Your task to perform on an android device: install app "Nova Launcher" Image 0: 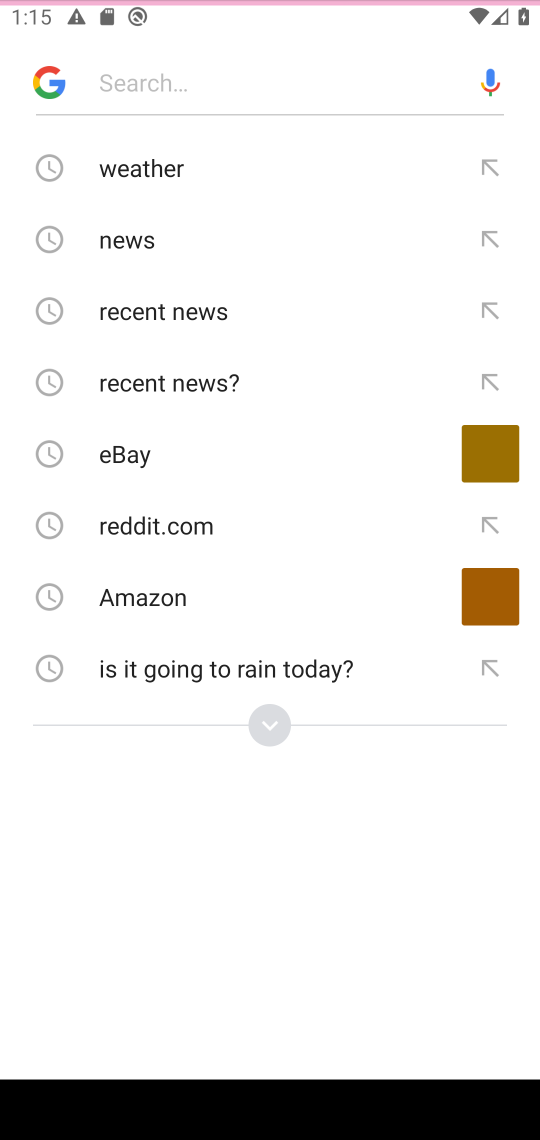
Step 0: press home button
Your task to perform on an android device: install app "Nova Launcher" Image 1: 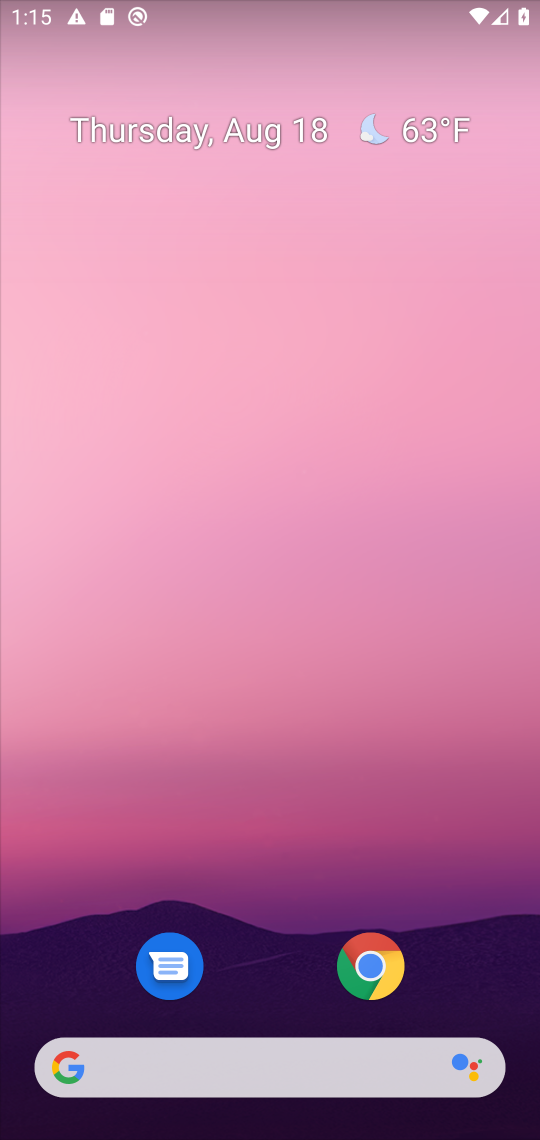
Step 1: press home button
Your task to perform on an android device: install app "Nova Launcher" Image 2: 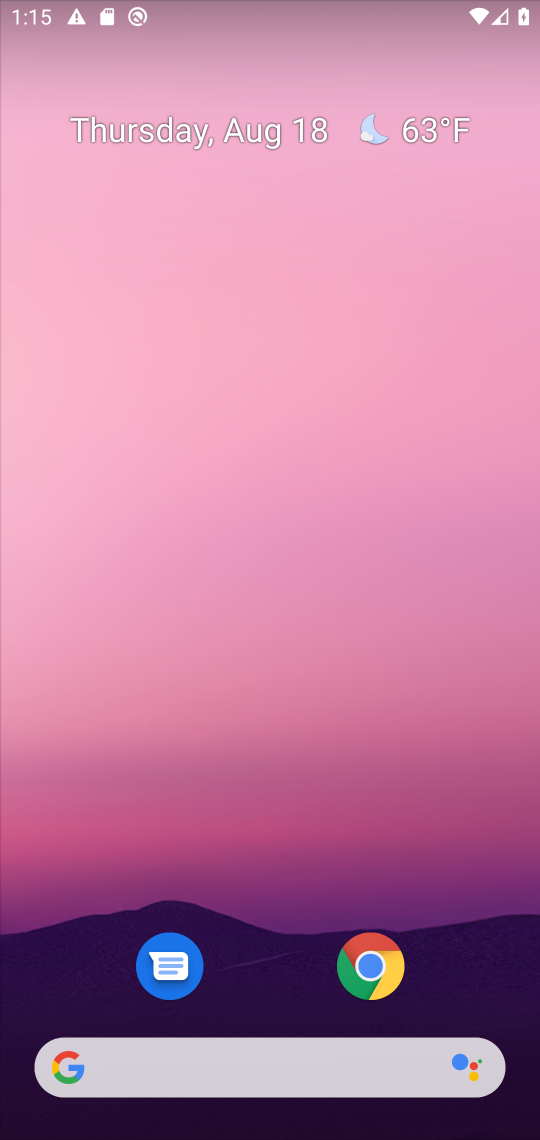
Step 2: drag from (272, 995) to (306, 1)
Your task to perform on an android device: install app "Nova Launcher" Image 3: 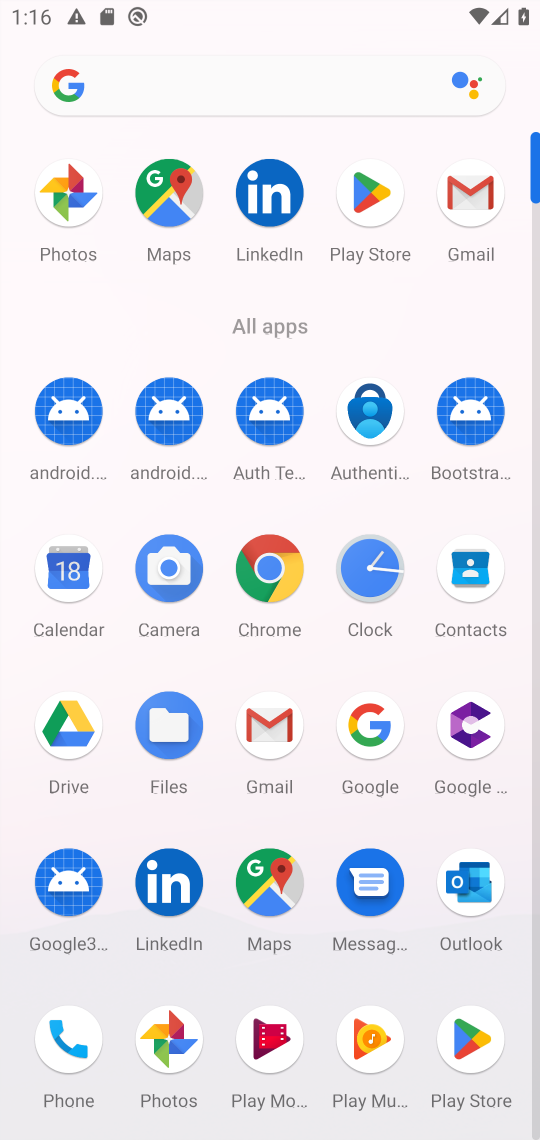
Step 3: click (368, 192)
Your task to perform on an android device: install app "Nova Launcher" Image 4: 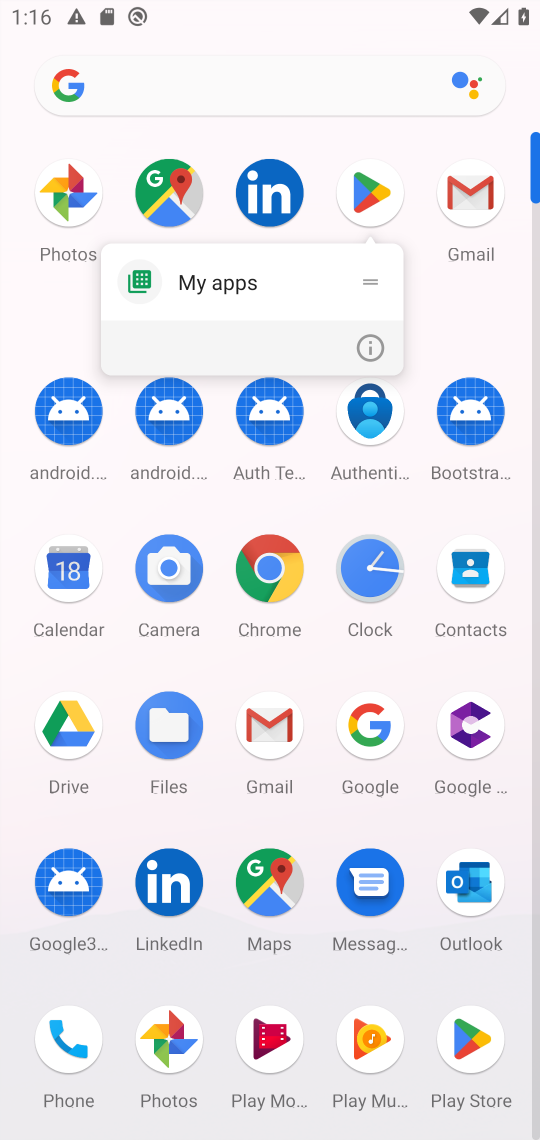
Step 4: click (368, 192)
Your task to perform on an android device: install app "Nova Launcher" Image 5: 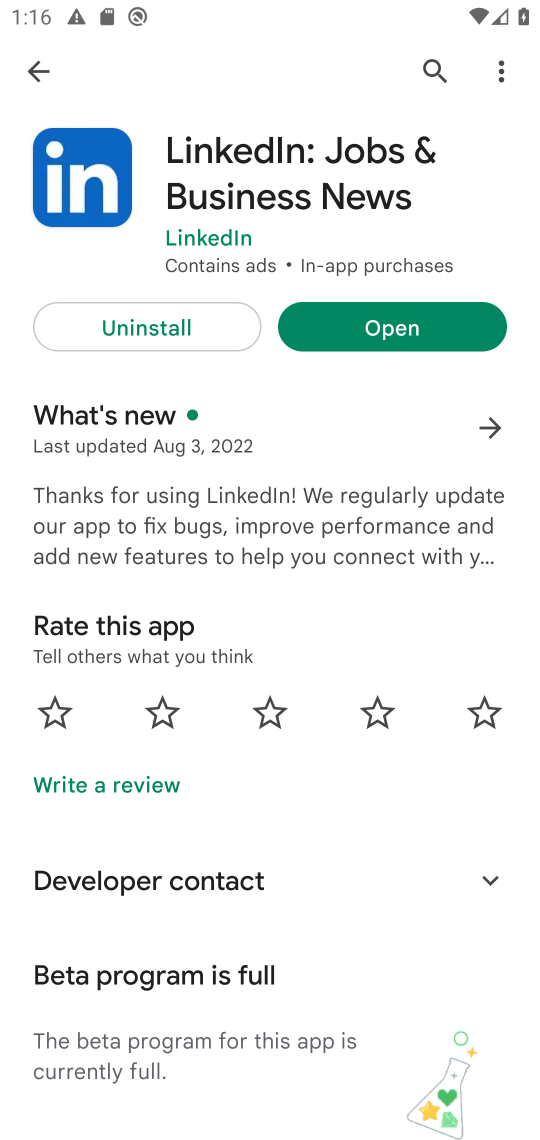
Step 5: click (431, 67)
Your task to perform on an android device: install app "Nova Launcher" Image 6: 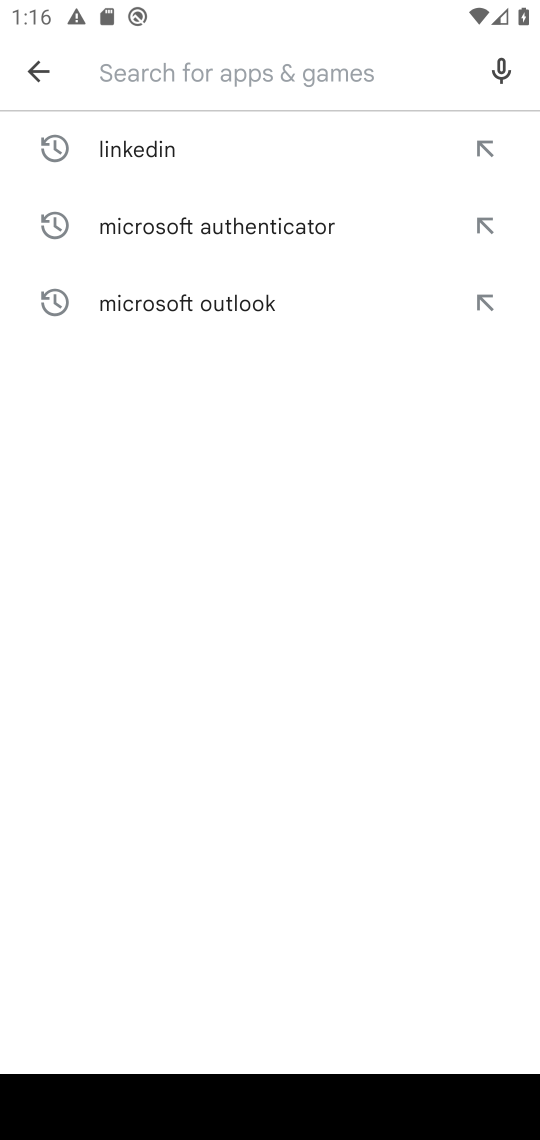
Step 6: type "Nova Launcher"
Your task to perform on an android device: install app "Nova Launcher" Image 7: 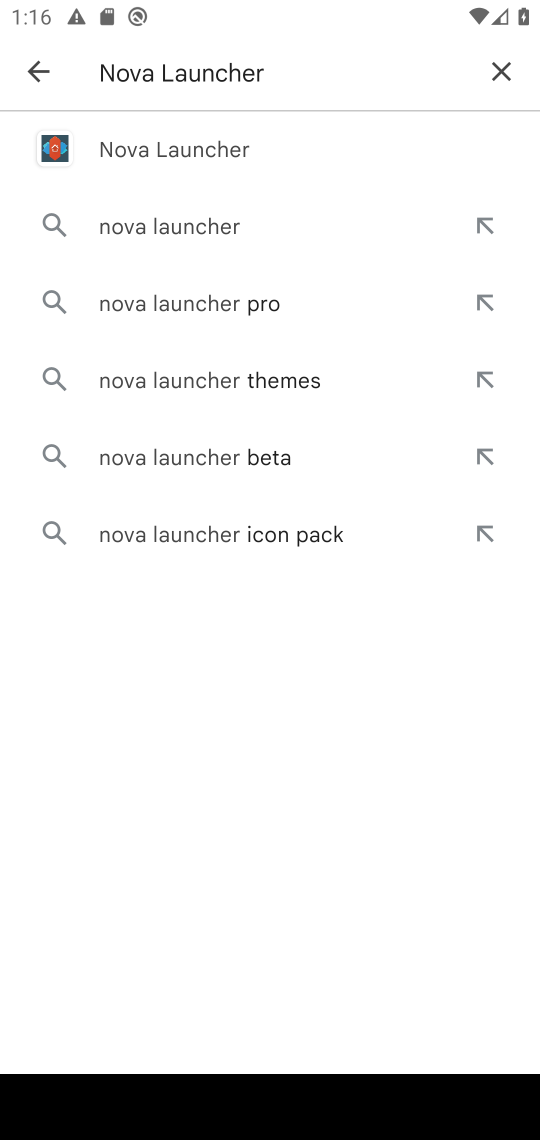
Step 7: click (155, 170)
Your task to perform on an android device: install app "Nova Launcher" Image 8: 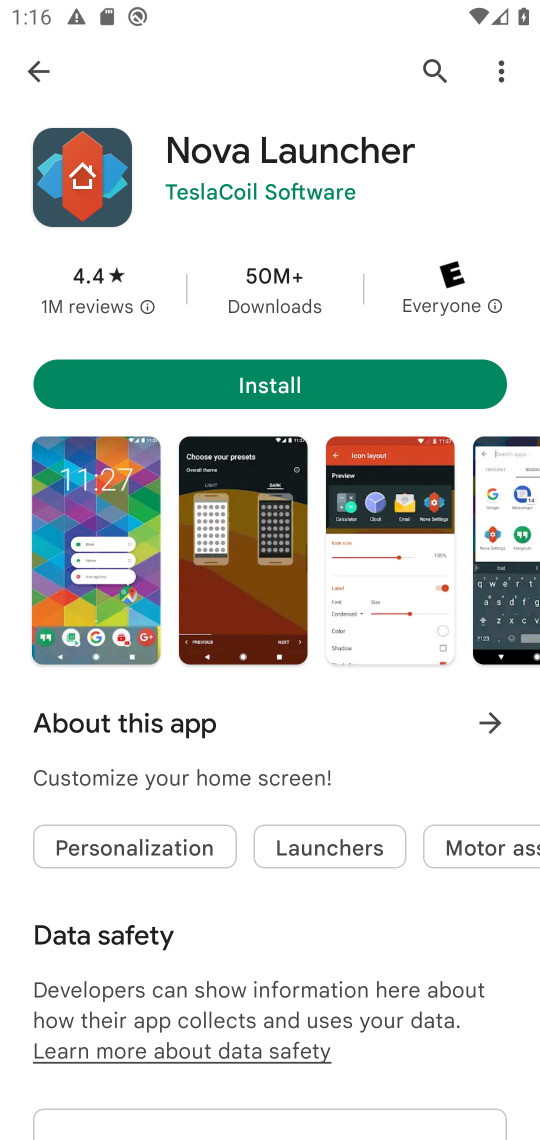
Step 8: click (265, 382)
Your task to perform on an android device: install app "Nova Launcher" Image 9: 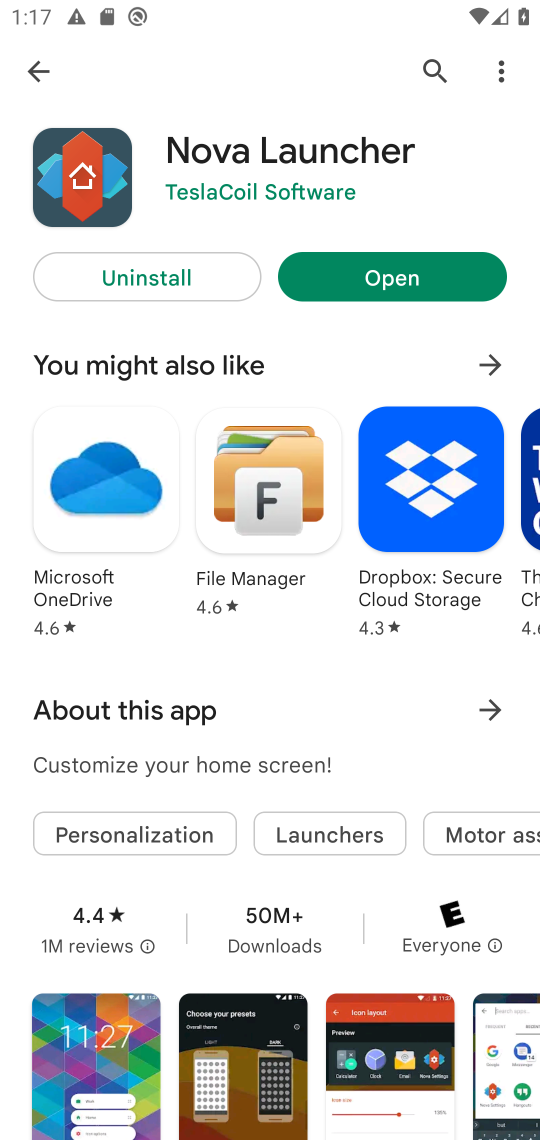
Step 9: click (386, 274)
Your task to perform on an android device: install app "Nova Launcher" Image 10: 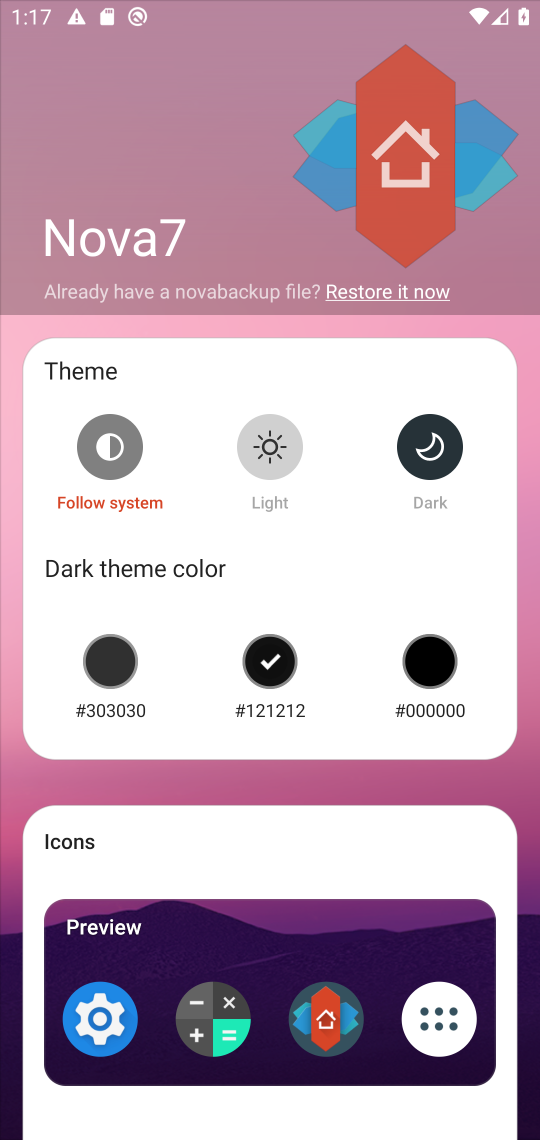
Step 10: task complete